Your task to perform on an android device: What is the recent news? Image 0: 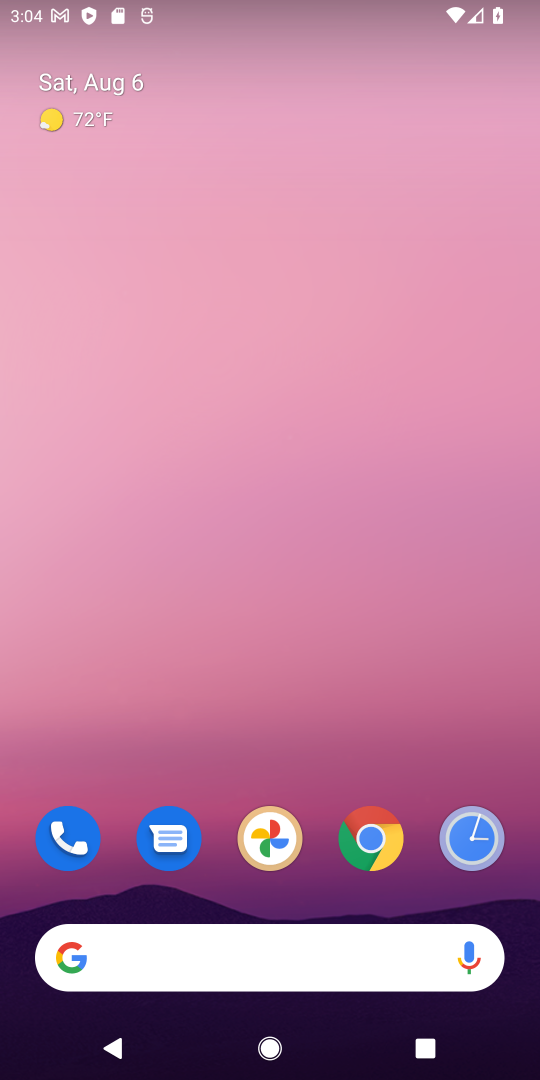
Step 0: click (243, 974)
Your task to perform on an android device: What is the recent news? Image 1: 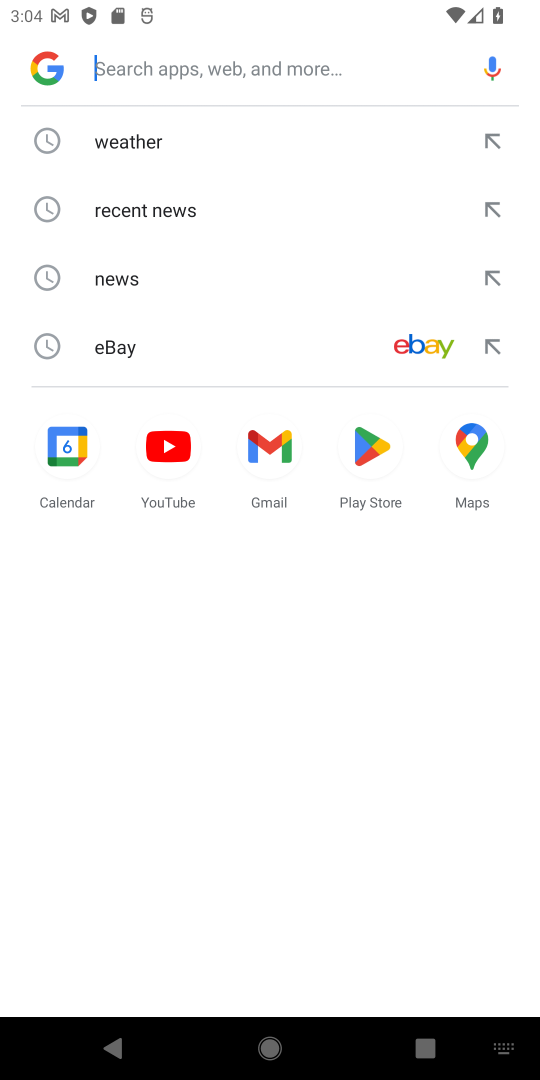
Step 1: click (153, 268)
Your task to perform on an android device: What is the recent news? Image 2: 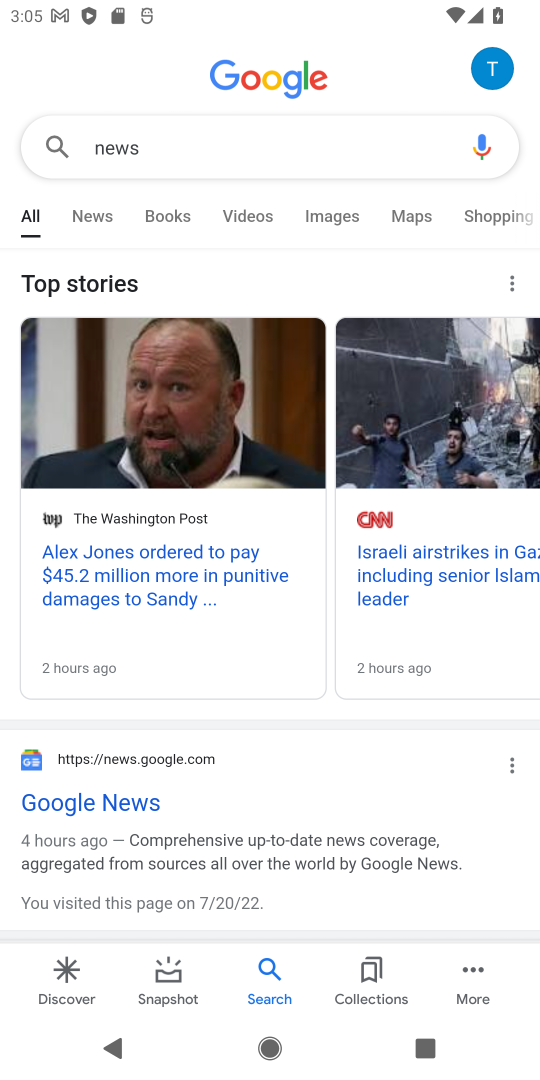
Step 2: task complete